Your task to perform on an android device: set an alarm Image 0: 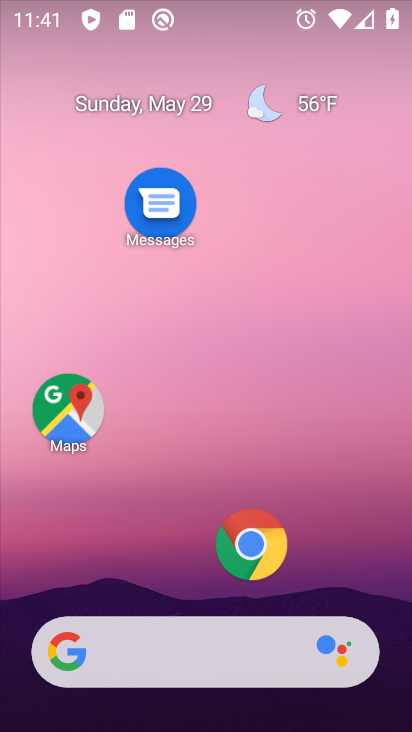
Step 0: drag from (191, 577) to (227, 131)
Your task to perform on an android device: set an alarm Image 1: 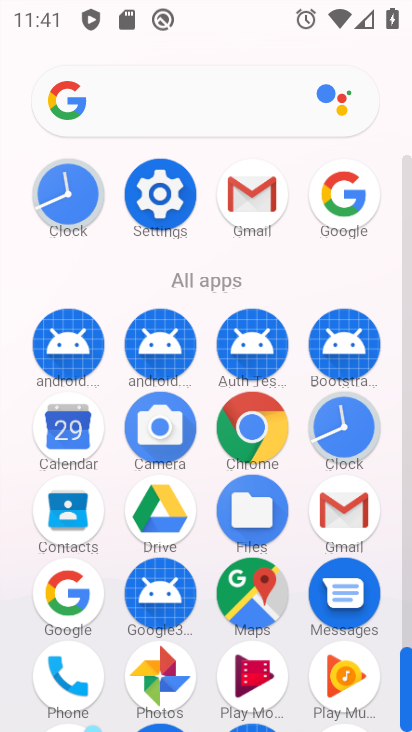
Step 1: click (348, 425)
Your task to perform on an android device: set an alarm Image 2: 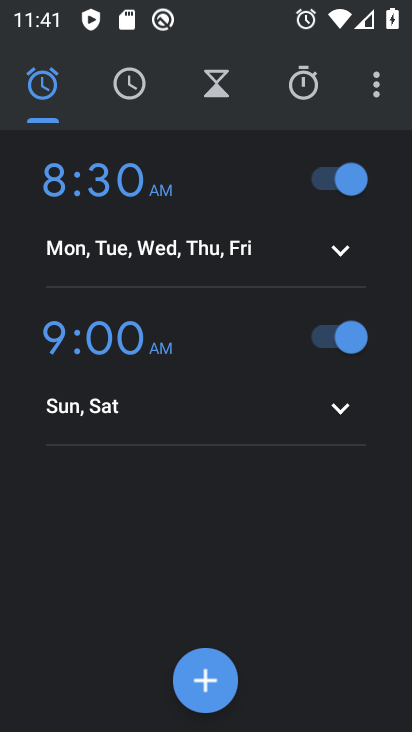
Step 2: task complete